Your task to perform on an android device: Open Google Chrome and click the shortcut for Amazon.com Image 0: 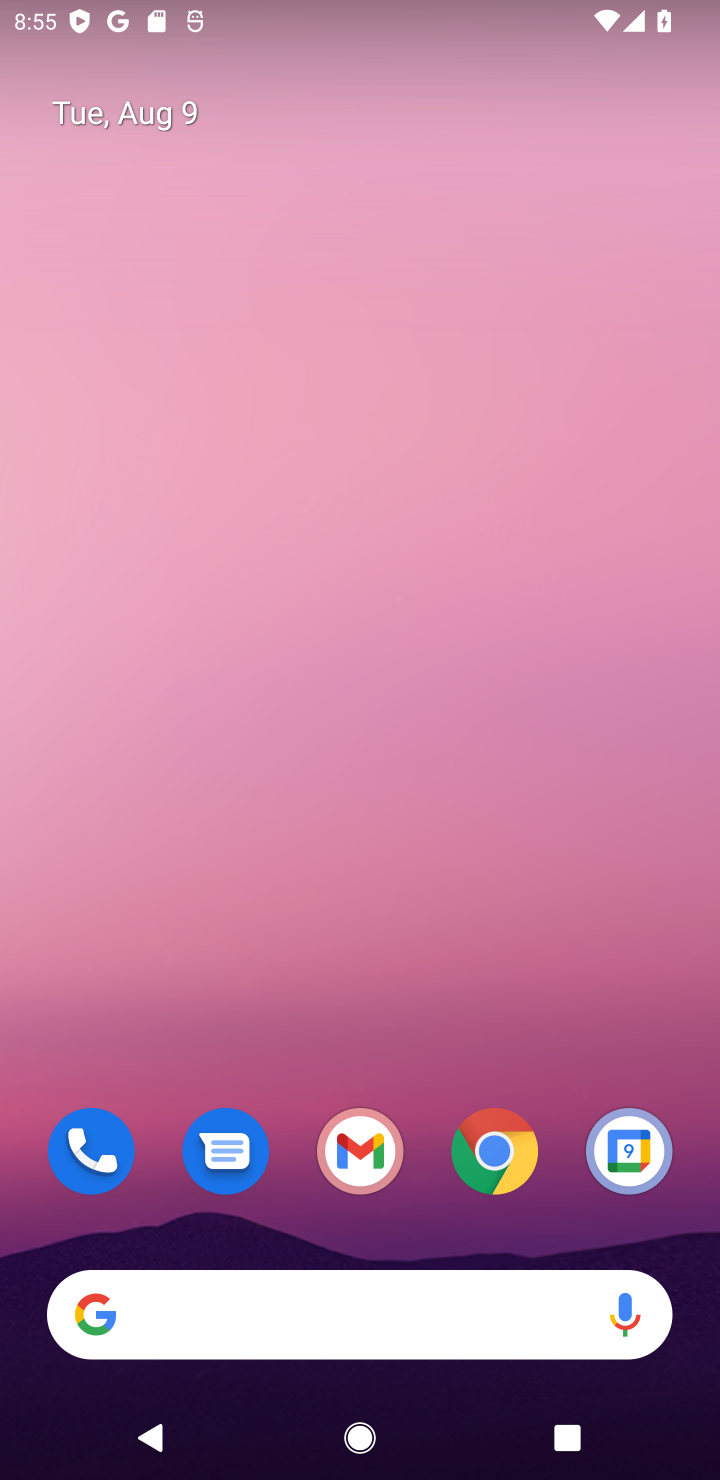
Step 0: click (468, 1159)
Your task to perform on an android device: Open Google Chrome and click the shortcut for Amazon.com Image 1: 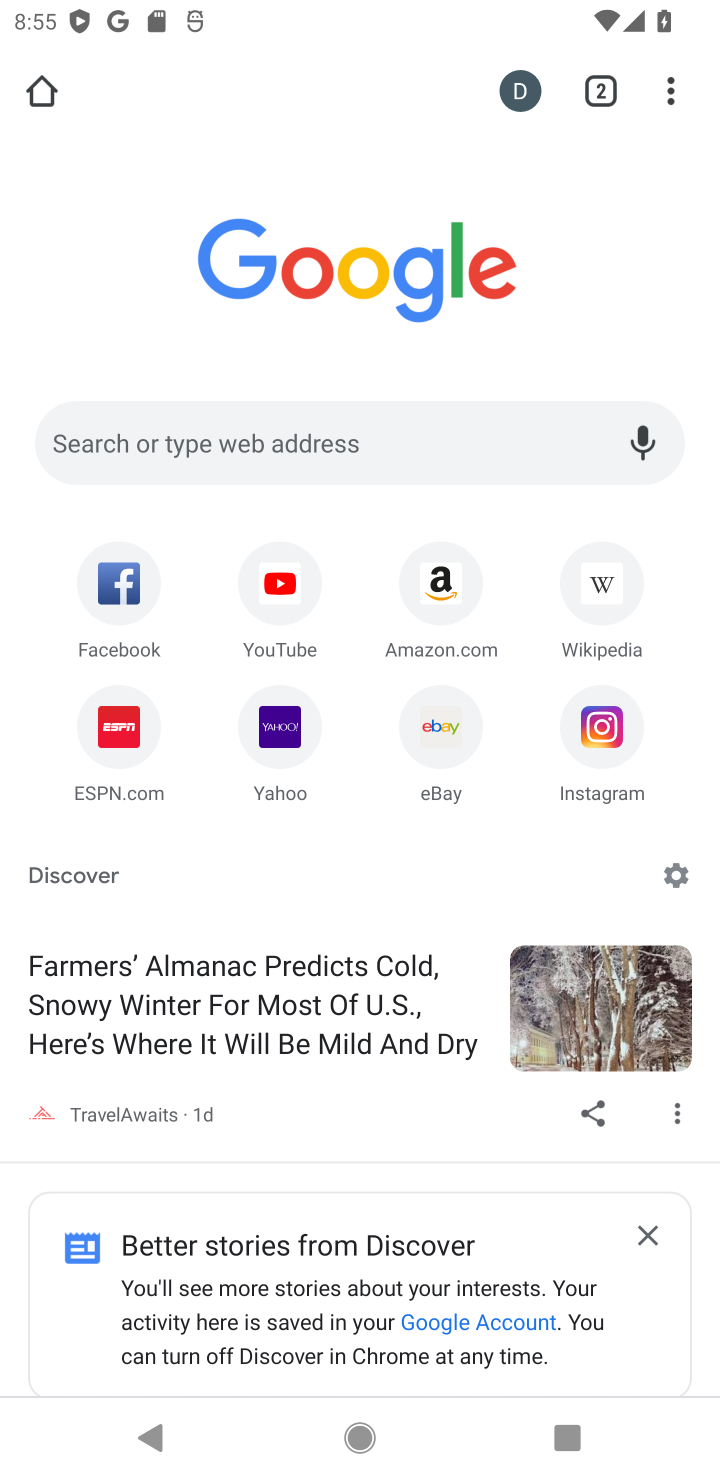
Step 1: click (435, 584)
Your task to perform on an android device: Open Google Chrome and click the shortcut for Amazon.com Image 2: 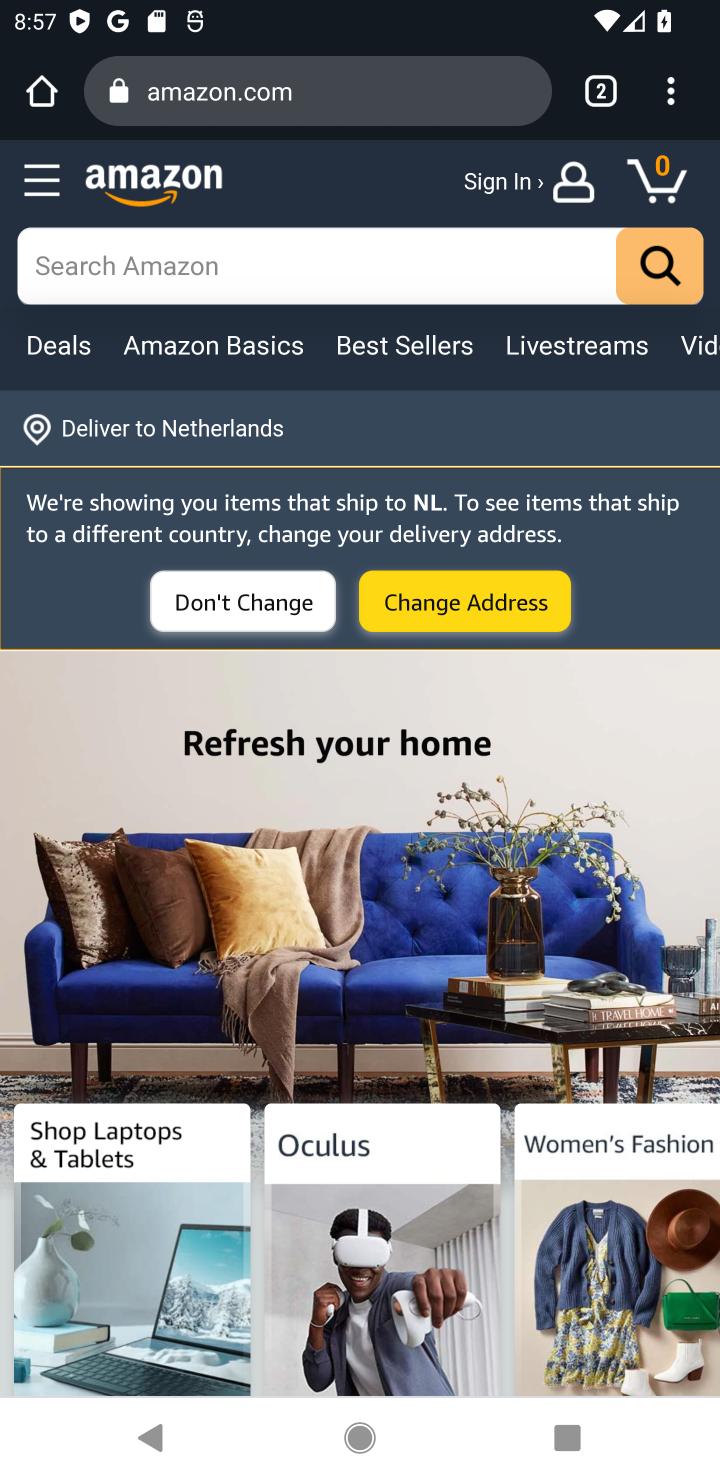
Step 2: click (470, 612)
Your task to perform on an android device: Open Google Chrome and click the shortcut for Amazon.com Image 3: 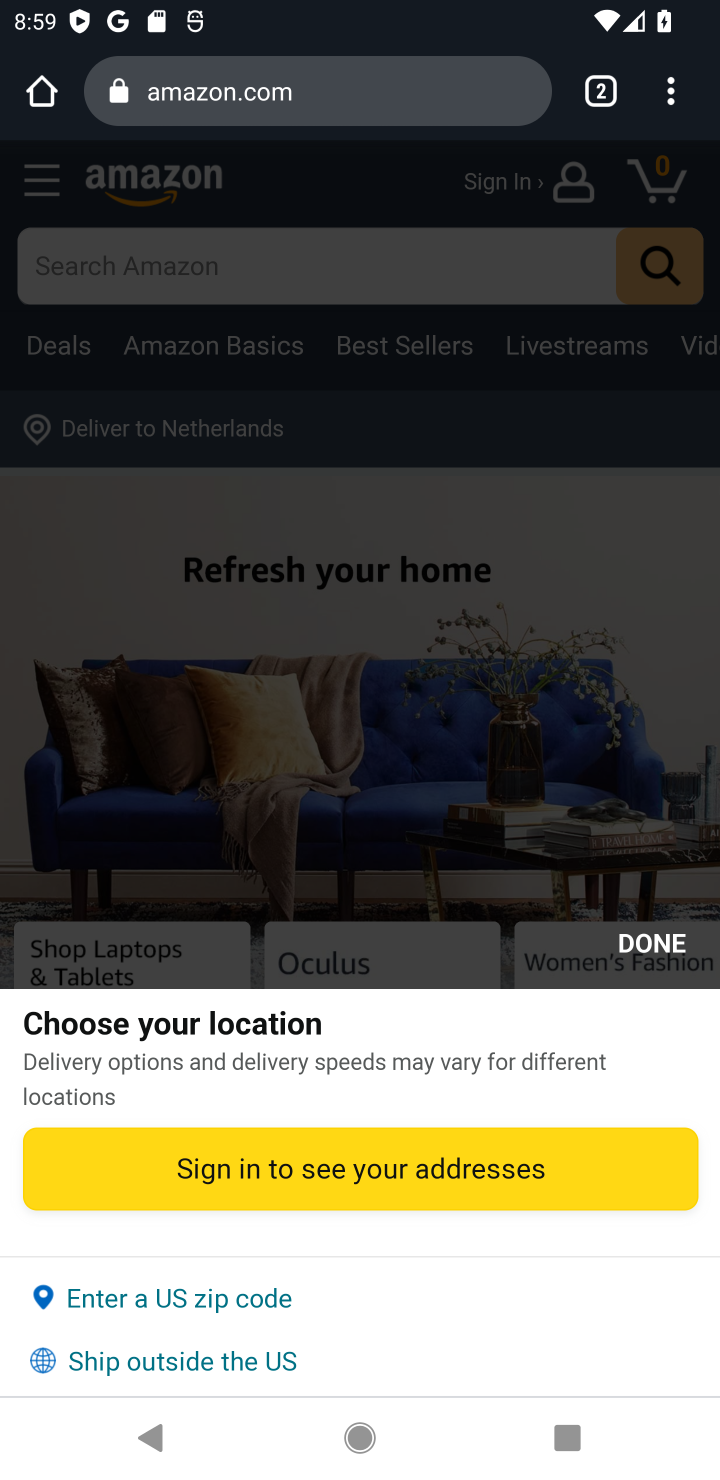
Step 3: task complete